Your task to perform on an android device: turn on javascript in the chrome app Image 0: 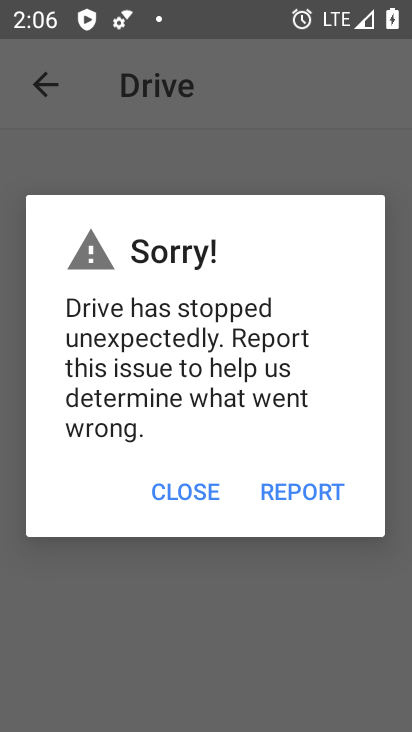
Step 0: press back button
Your task to perform on an android device: turn on javascript in the chrome app Image 1: 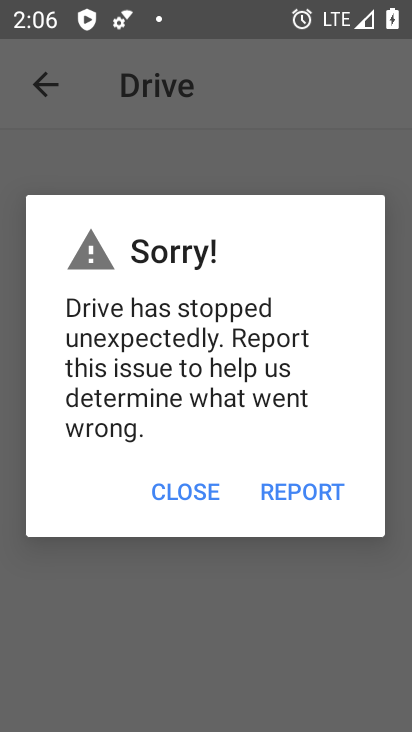
Step 1: press home button
Your task to perform on an android device: turn on javascript in the chrome app Image 2: 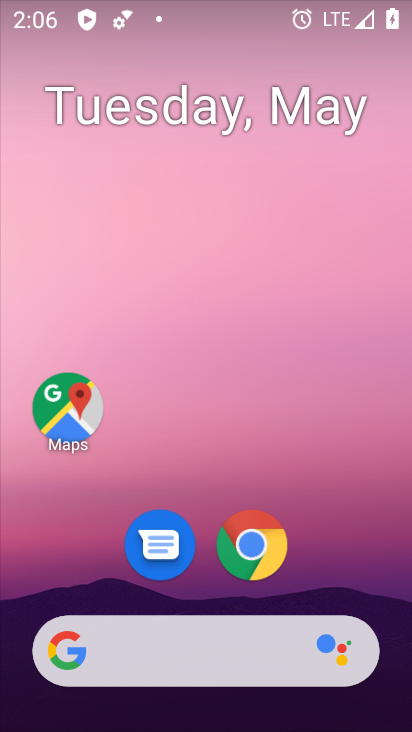
Step 2: drag from (359, 538) to (284, 17)
Your task to perform on an android device: turn on javascript in the chrome app Image 3: 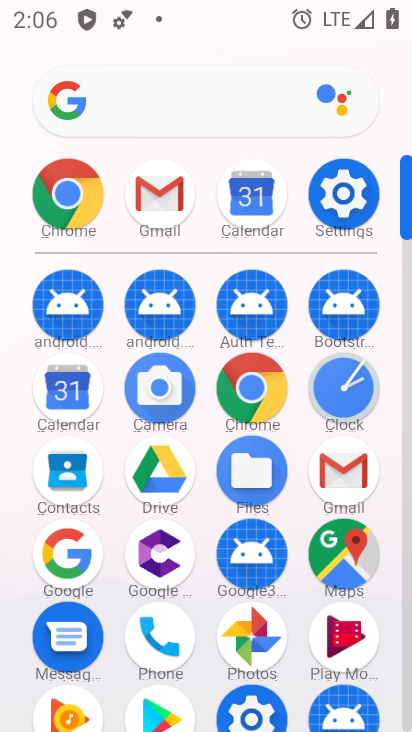
Step 3: drag from (5, 635) to (9, 304)
Your task to perform on an android device: turn on javascript in the chrome app Image 4: 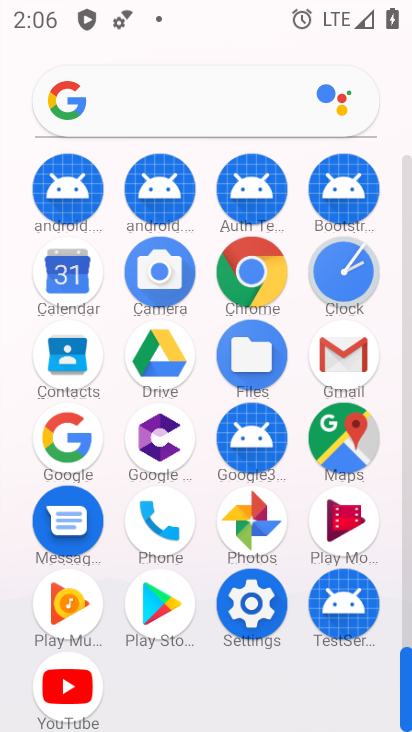
Step 4: click (243, 268)
Your task to perform on an android device: turn on javascript in the chrome app Image 5: 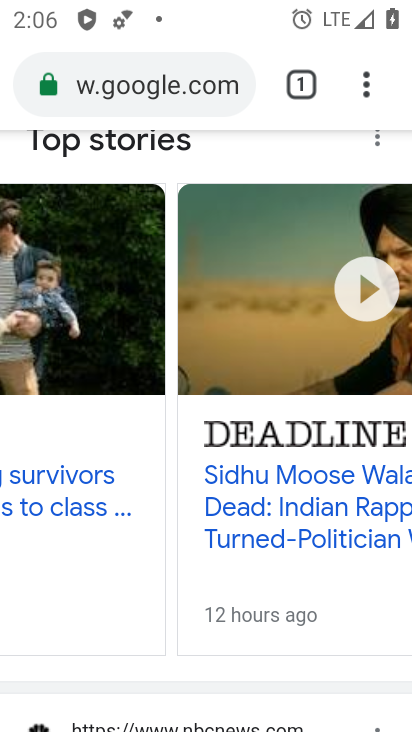
Step 5: drag from (371, 81) to (142, 592)
Your task to perform on an android device: turn on javascript in the chrome app Image 6: 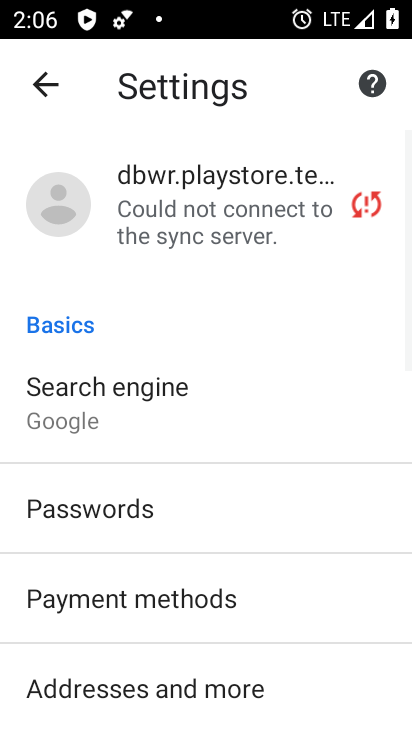
Step 6: drag from (250, 558) to (265, 172)
Your task to perform on an android device: turn on javascript in the chrome app Image 7: 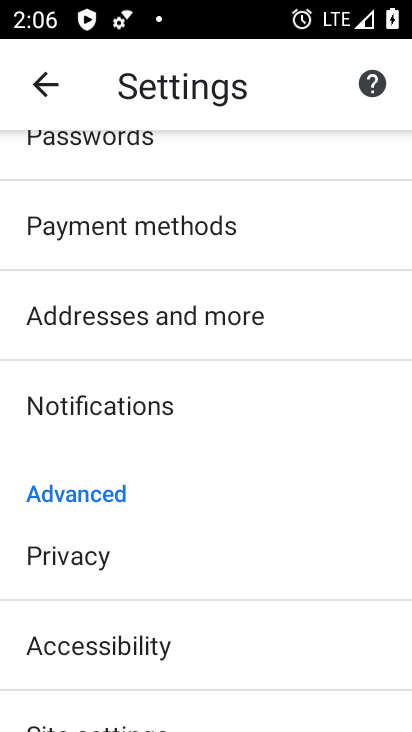
Step 7: drag from (248, 547) to (278, 187)
Your task to perform on an android device: turn on javascript in the chrome app Image 8: 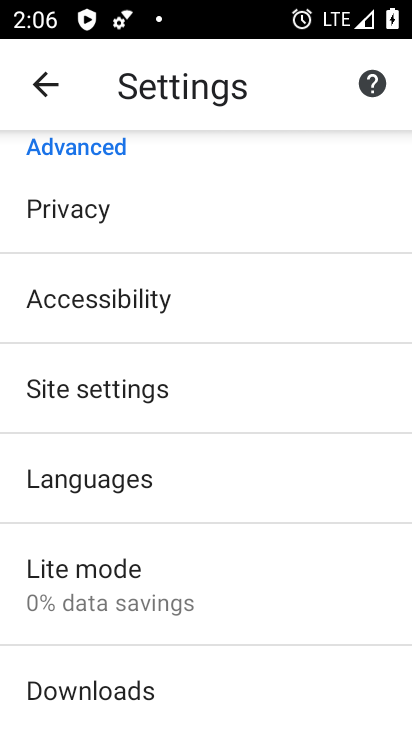
Step 8: click (167, 387)
Your task to perform on an android device: turn on javascript in the chrome app Image 9: 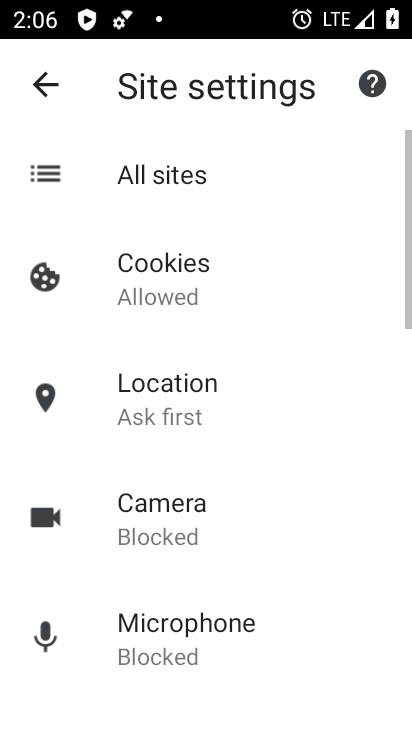
Step 9: drag from (268, 589) to (262, 198)
Your task to perform on an android device: turn on javascript in the chrome app Image 10: 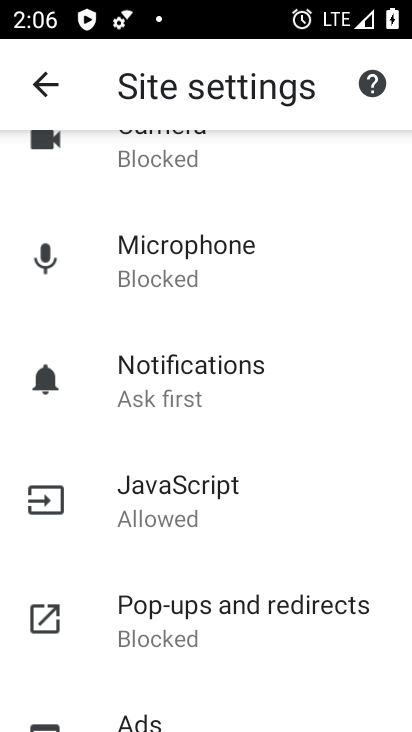
Step 10: click (200, 504)
Your task to perform on an android device: turn on javascript in the chrome app Image 11: 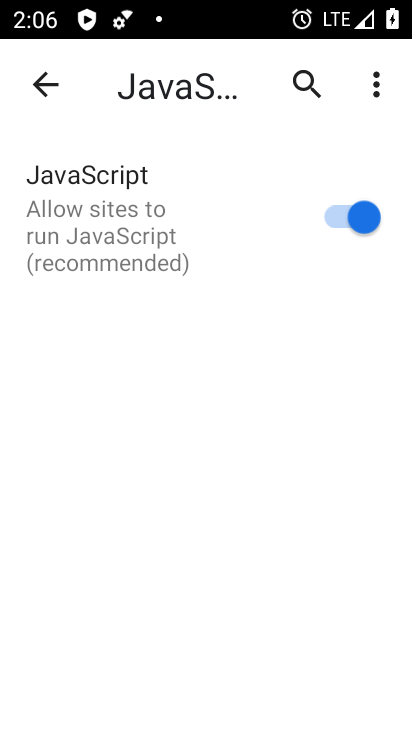
Step 11: task complete